Your task to perform on an android device: create a new album in the google photos Image 0: 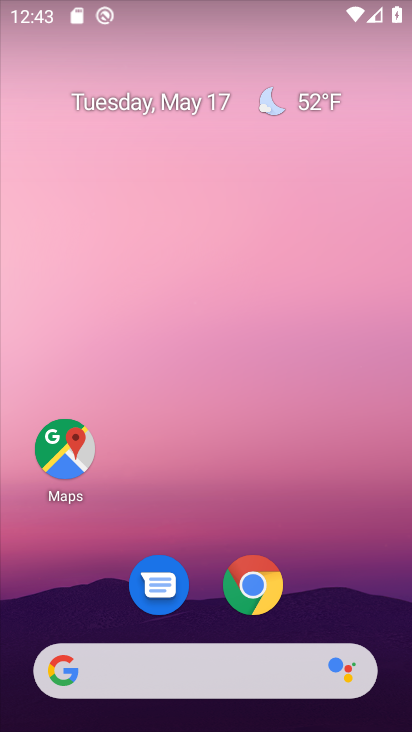
Step 0: drag from (194, 464) to (211, 16)
Your task to perform on an android device: create a new album in the google photos Image 1: 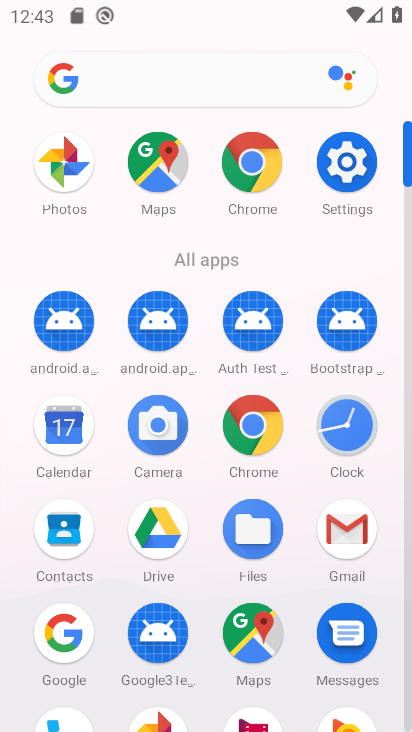
Step 1: click (66, 159)
Your task to perform on an android device: create a new album in the google photos Image 2: 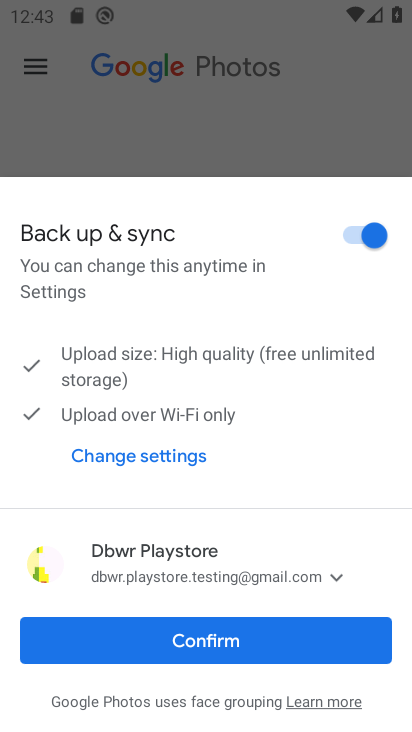
Step 2: click (270, 636)
Your task to perform on an android device: create a new album in the google photos Image 3: 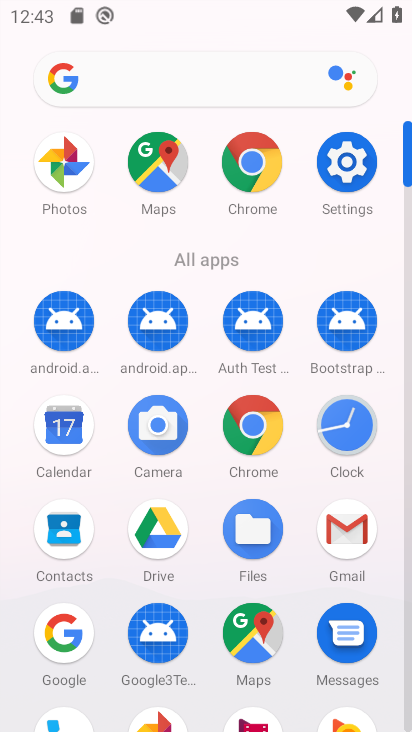
Step 3: click (69, 157)
Your task to perform on an android device: create a new album in the google photos Image 4: 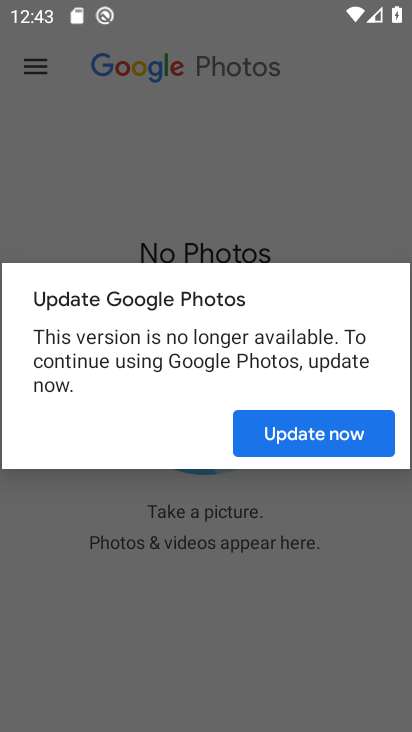
Step 4: click (254, 430)
Your task to perform on an android device: create a new album in the google photos Image 5: 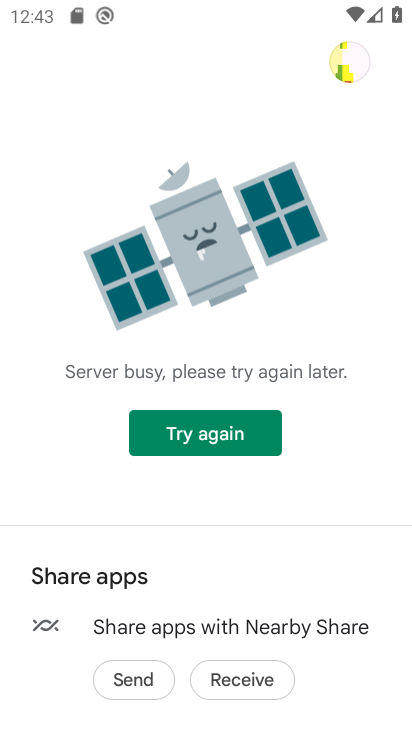
Step 5: click (253, 433)
Your task to perform on an android device: create a new album in the google photos Image 6: 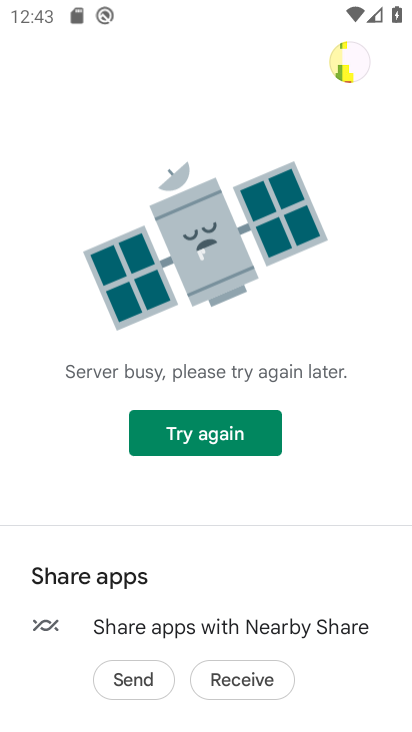
Step 6: click (253, 433)
Your task to perform on an android device: create a new album in the google photos Image 7: 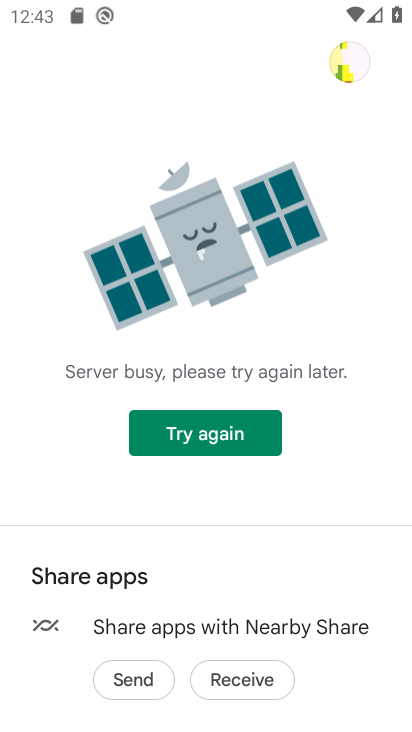
Step 7: click (253, 433)
Your task to perform on an android device: create a new album in the google photos Image 8: 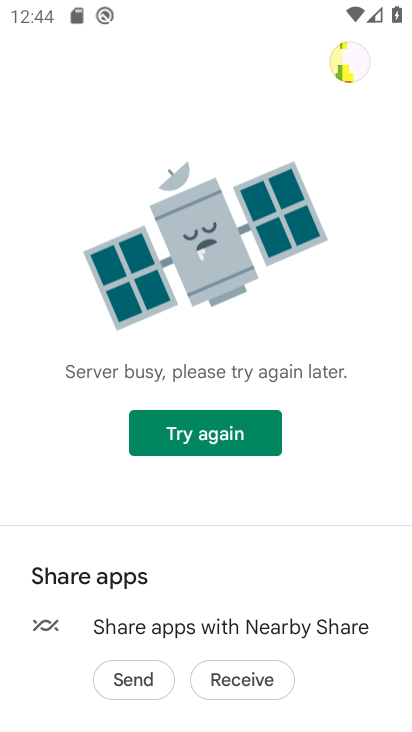
Step 8: task complete